Your task to perform on an android device: toggle airplane mode Image 0: 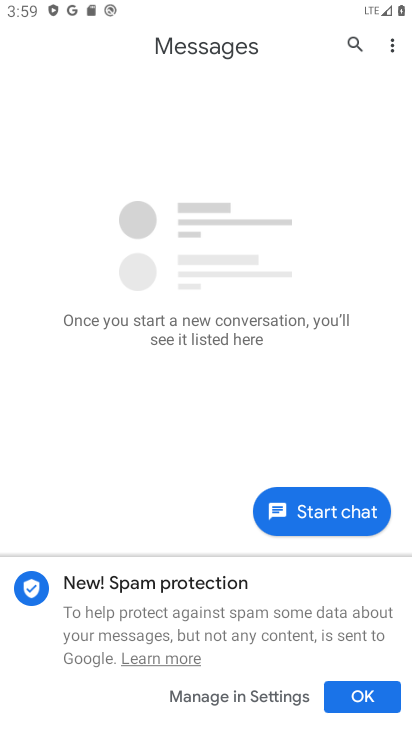
Step 0: press back button
Your task to perform on an android device: toggle airplane mode Image 1: 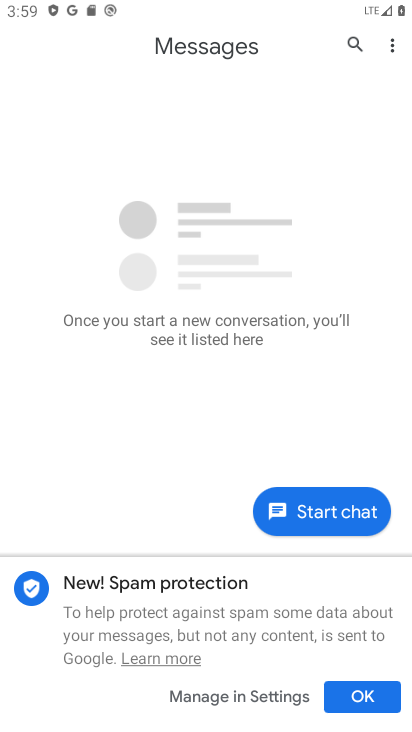
Step 1: press back button
Your task to perform on an android device: toggle airplane mode Image 2: 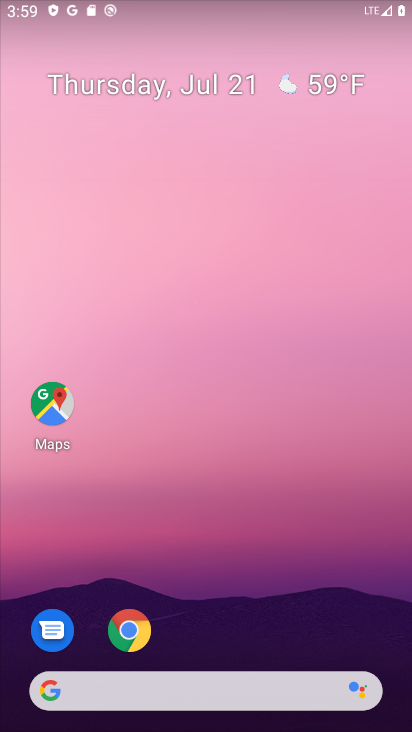
Step 2: drag from (214, 631) to (232, 132)
Your task to perform on an android device: toggle airplane mode Image 3: 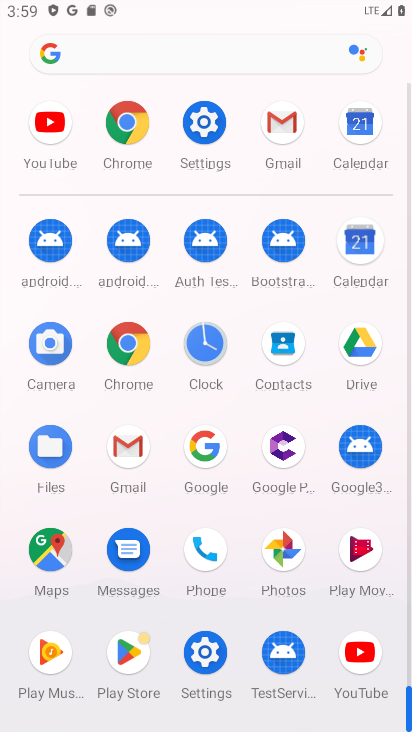
Step 3: click (202, 131)
Your task to perform on an android device: toggle airplane mode Image 4: 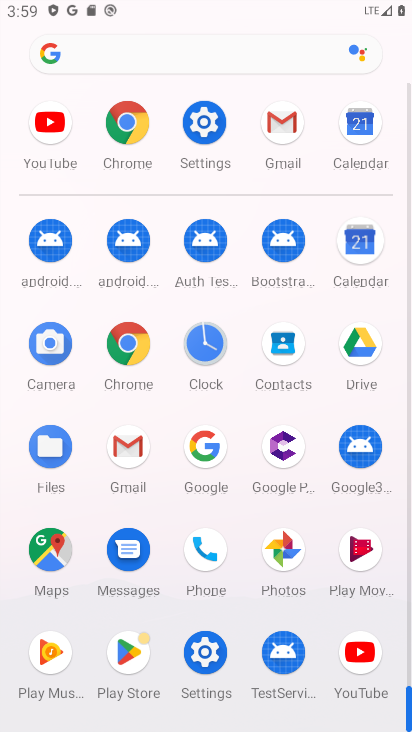
Step 4: click (205, 128)
Your task to perform on an android device: toggle airplane mode Image 5: 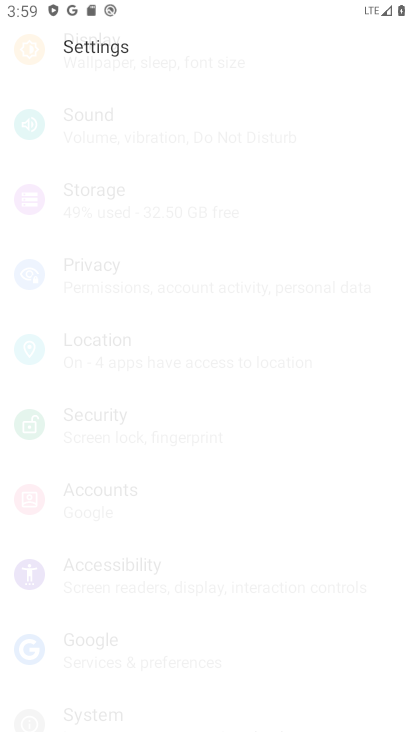
Step 5: click (206, 127)
Your task to perform on an android device: toggle airplane mode Image 6: 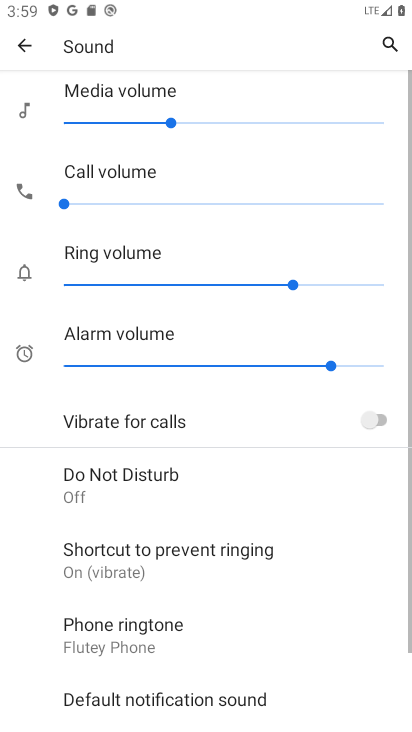
Step 6: drag from (144, 88) to (175, 552)
Your task to perform on an android device: toggle airplane mode Image 7: 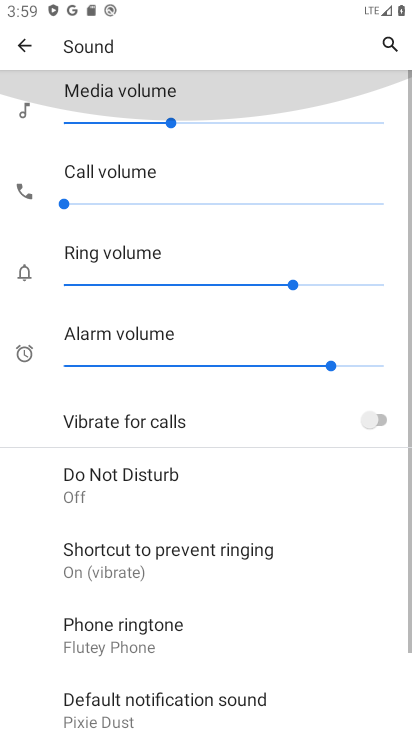
Step 7: click (171, 481)
Your task to perform on an android device: toggle airplane mode Image 8: 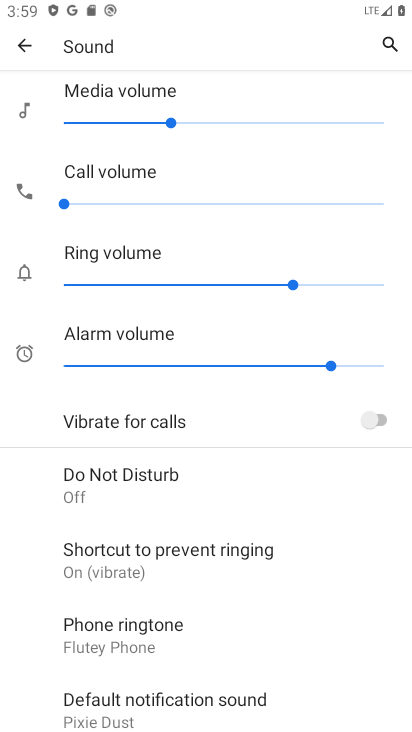
Step 8: click (15, 47)
Your task to perform on an android device: toggle airplane mode Image 9: 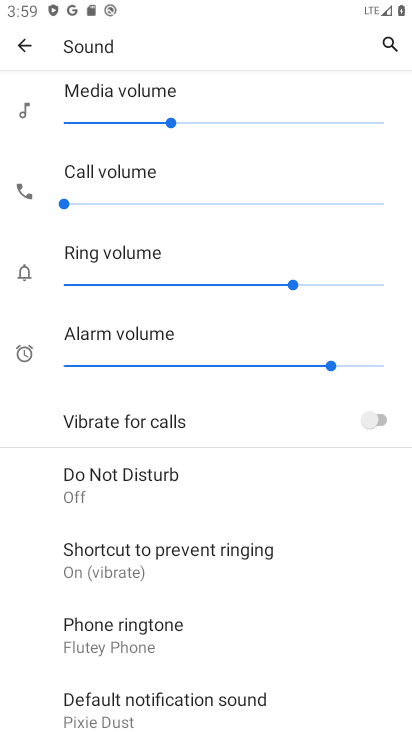
Step 9: click (25, 41)
Your task to perform on an android device: toggle airplane mode Image 10: 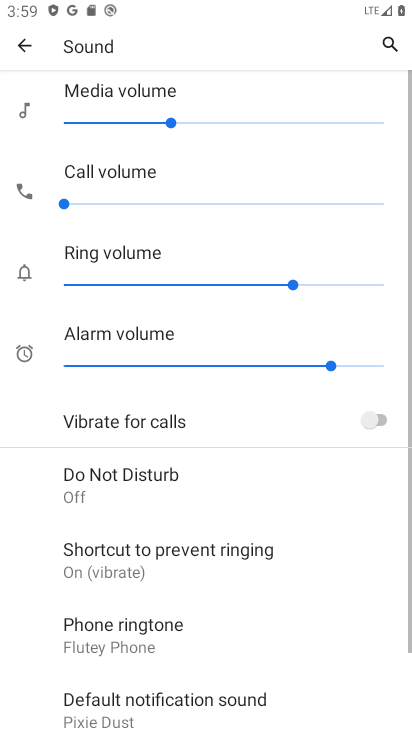
Step 10: drag from (176, 103) to (170, 528)
Your task to perform on an android device: toggle airplane mode Image 11: 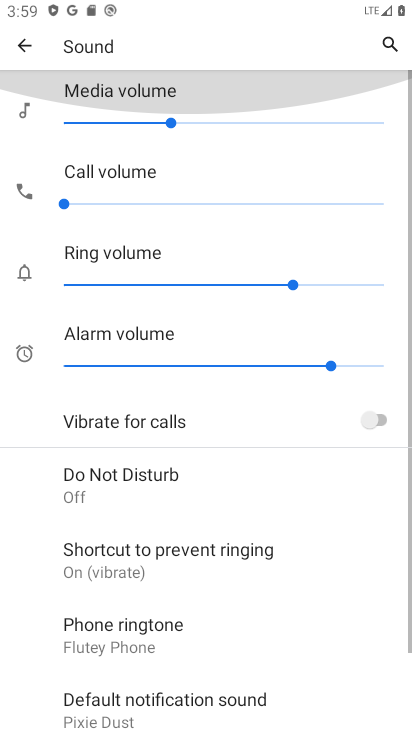
Step 11: drag from (149, 139) to (177, 473)
Your task to perform on an android device: toggle airplane mode Image 12: 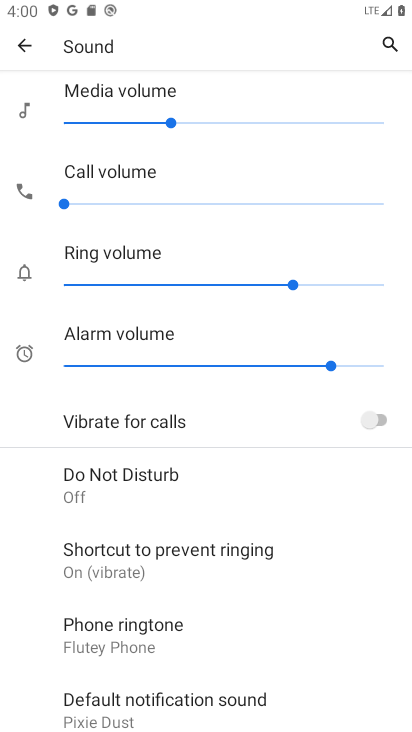
Step 12: click (32, 42)
Your task to perform on an android device: toggle airplane mode Image 13: 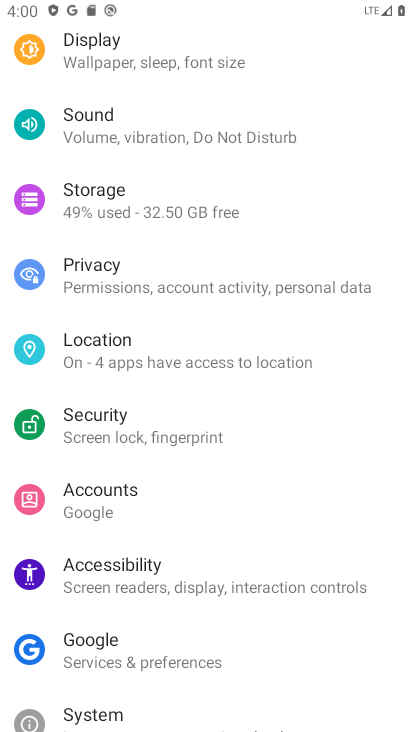
Step 13: drag from (140, 150) to (151, 411)
Your task to perform on an android device: toggle airplane mode Image 14: 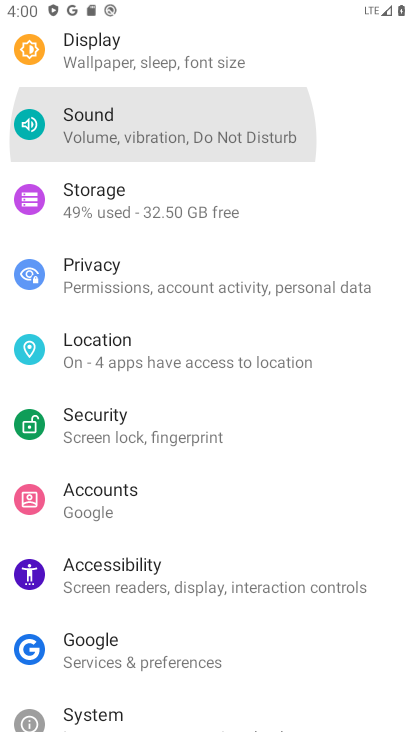
Step 14: drag from (122, 123) to (186, 499)
Your task to perform on an android device: toggle airplane mode Image 15: 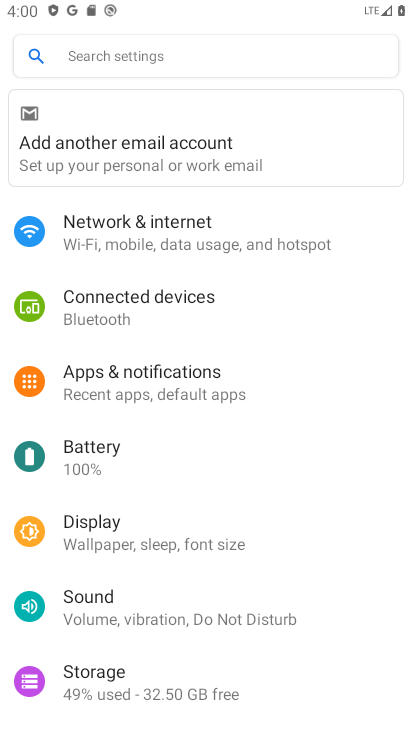
Step 15: drag from (145, 172) to (187, 455)
Your task to perform on an android device: toggle airplane mode Image 16: 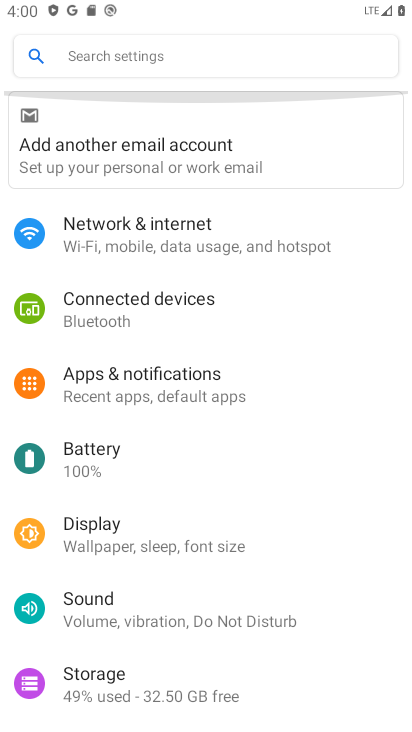
Step 16: drag from (194, 172) to (230, 452)
Your task to perform on an android device: toggle airplane mode Image 17: 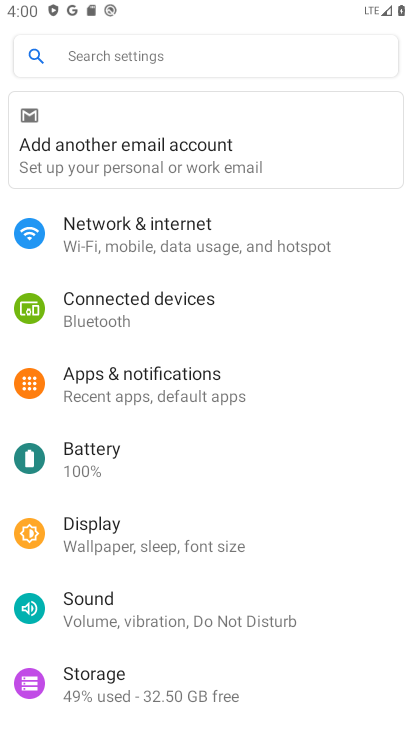
Step 17: click (162, 242)
Your task to perform on an android device: toggle airplane mode Image 18: 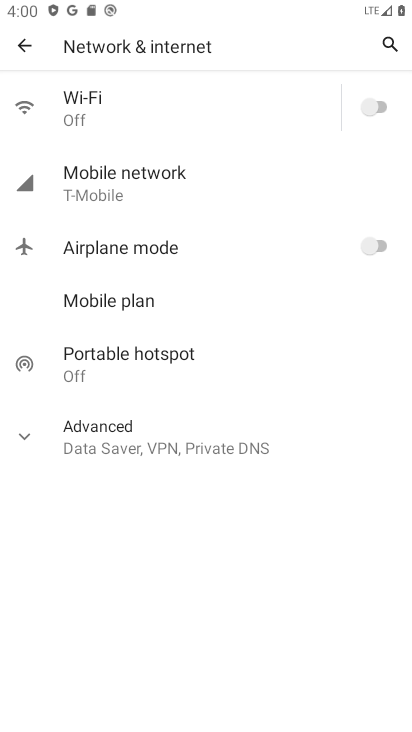
Step 18: click (373, 232)
Your task to perform on an android device: toggle airplane mode Image 19: 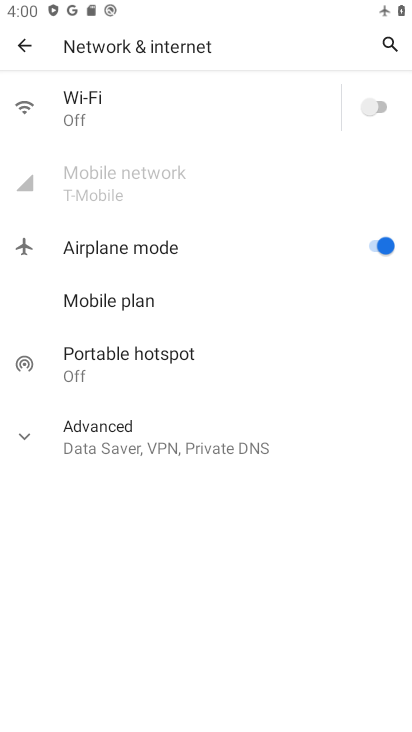
Step 19: task complete